Your task to perform on an android device: Empty the shopping cart on bestbuy.com. Image 0: 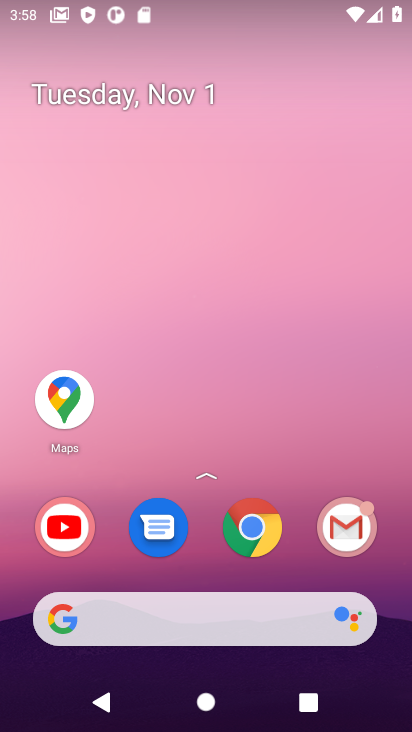
Step 0: click (166, 621)
Your task to perform on an android device: Empty the shopping cart on bestbuy.com. Image 1: 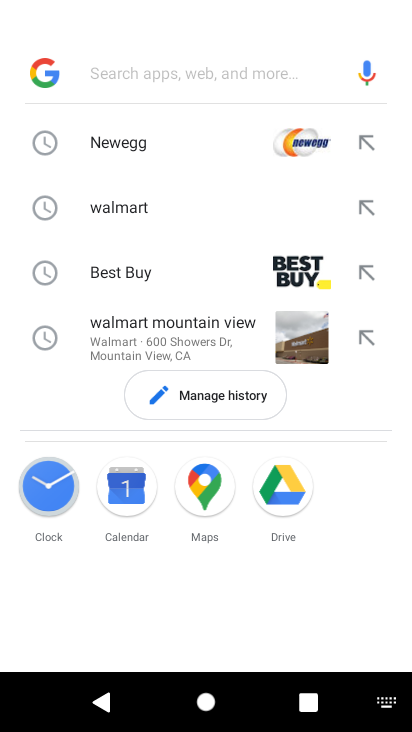
Step 1: type "bestbuy.com."
Your task to perform on an android device: Empty the shopping cart on bestbuy.com. Image 2: 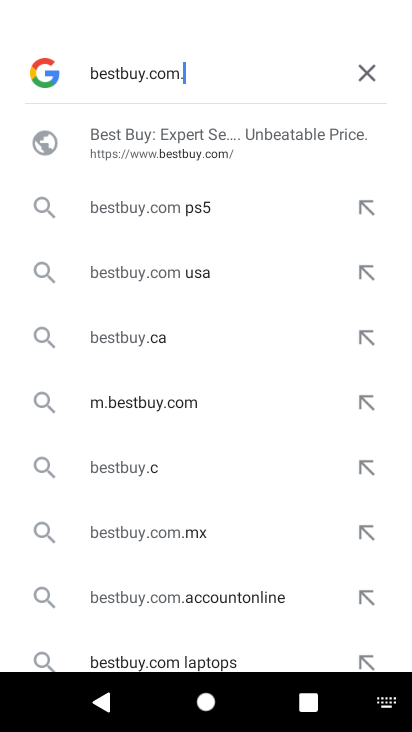
Step 2: click (207, 144)
Your task to perform on an android device: Empty the shopping cart on bestbuy.com. Image 3: 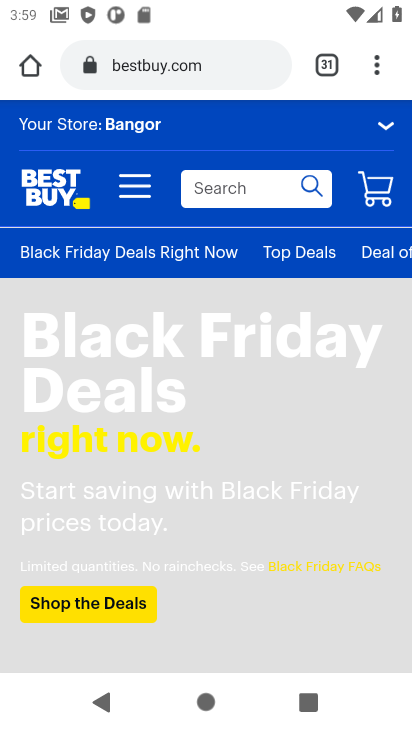
Step 3: click (378, 180)
Your task to perform on an android device: Empty the shopping cart on bestbuy.com. Image 4: 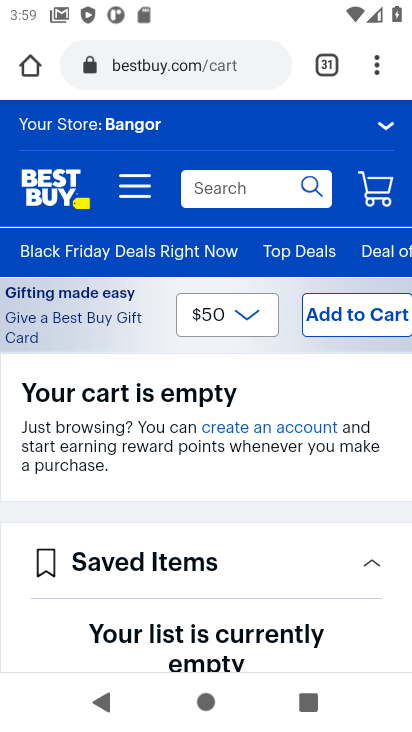
Step 4: task complete